Your task to perform on an android device: check storage Image 0: 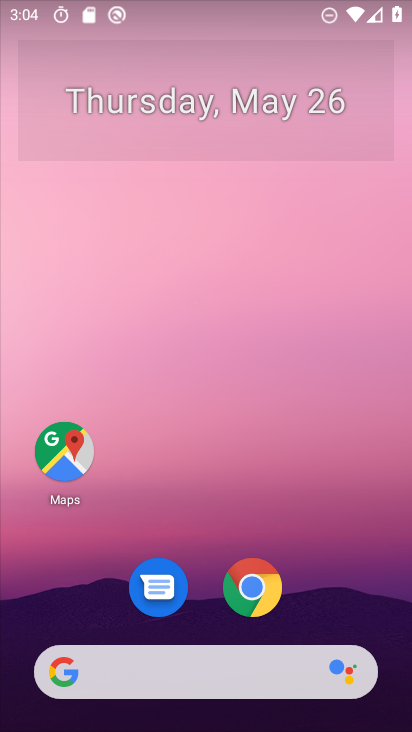
Step 0: drag from (121, 433) to (181, 57)
Your task to perform on an android device: check storage Image 1: 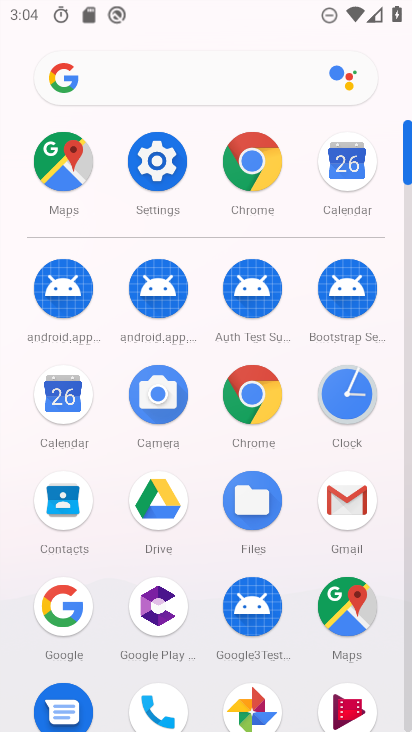
Step 1: click (154, 153)
Your task to perform on an android device: check storage Image 2: 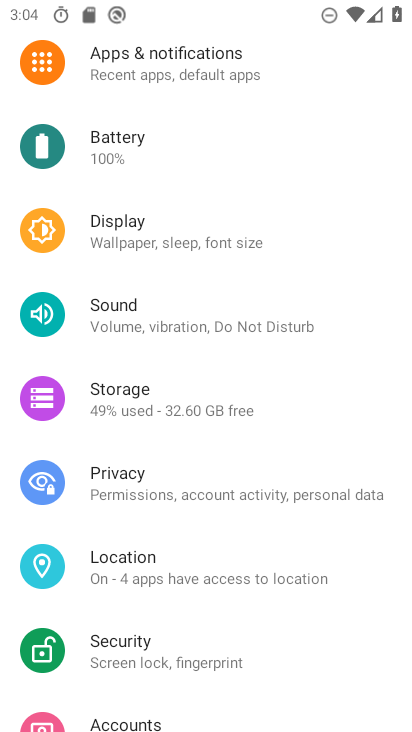
Step 2: drag from (221, 557) to (288, 98)
Your task to perform on an android device: check storage Image 3: 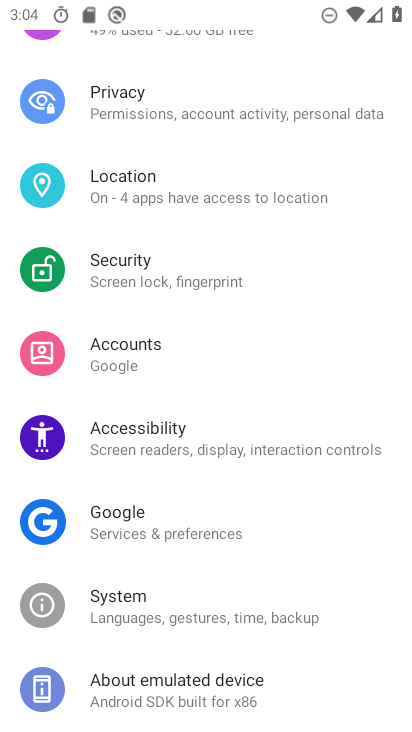
Step 3: drag from (285, 243) to (257, 601)
Your task to perform on an android device: check storage Image 4: 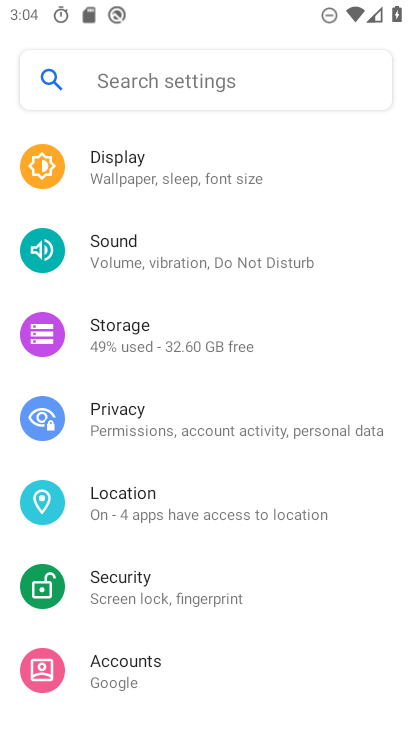
Step 4: click (194, 333)
Your task to perform on an android device: check storage Image 5: 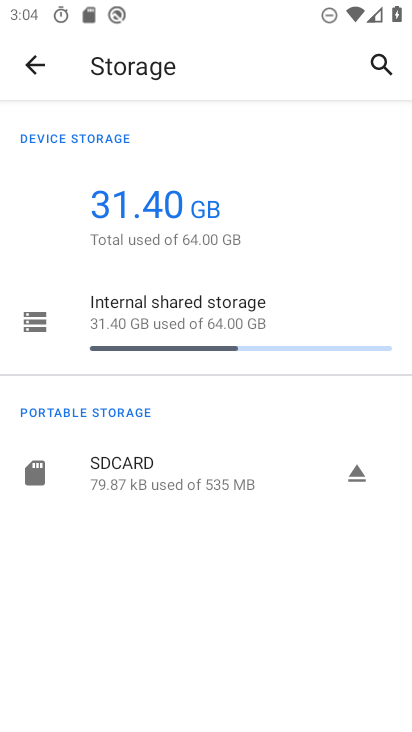
Step 5: task complete